Your task to perform on an android device: turn off improve location accuracy Image 0: 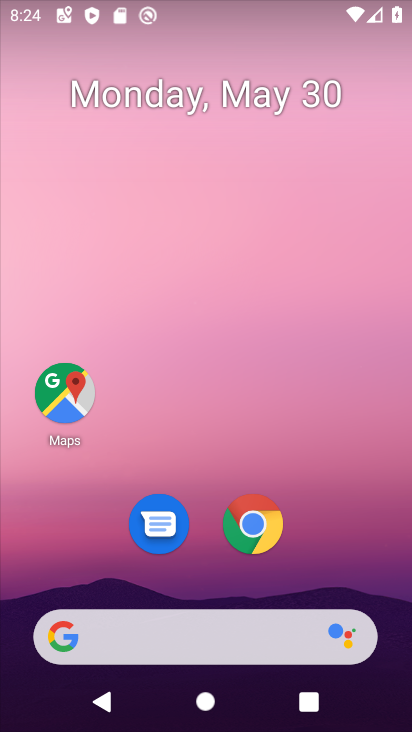
Step 0: drag from (230, 447) to (253, 1)
Your task to perform on an android device: turn off improve location accuracy Image 1: 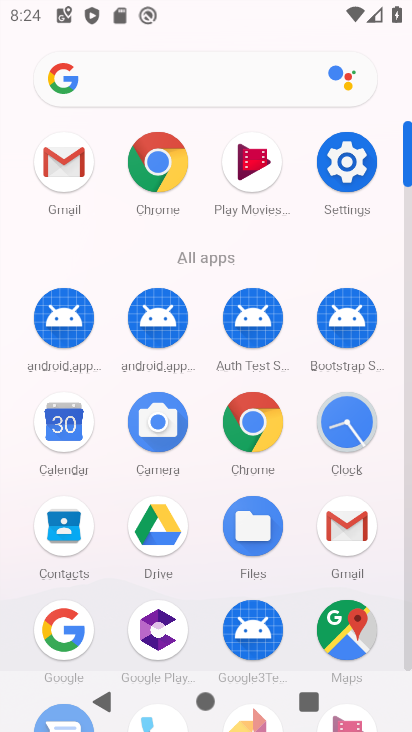
Step 1: click (339, 172)
Your task to perform on an android device: turn off improve location accuracy Image 2: 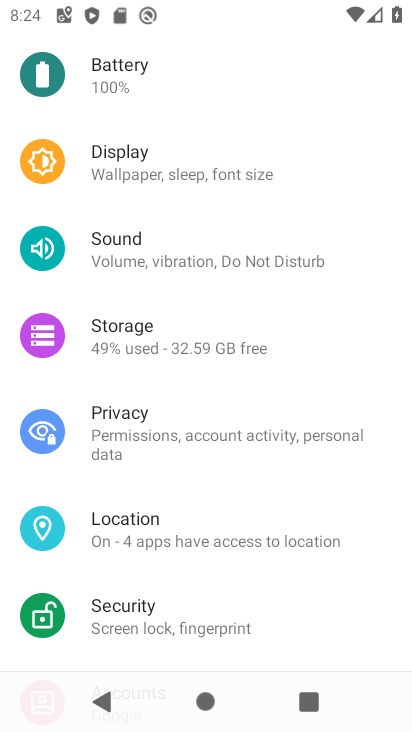
Step 2: click (183, 534)
Your task to perform on an android device: turn off improve location accuracy Image 3: 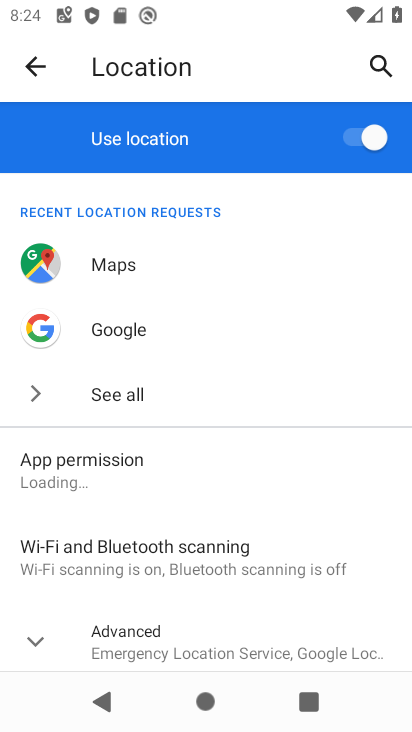
Step 3: click (34, 633)
Your task to perform on an android device: turn off improve location accuracy Image 4: 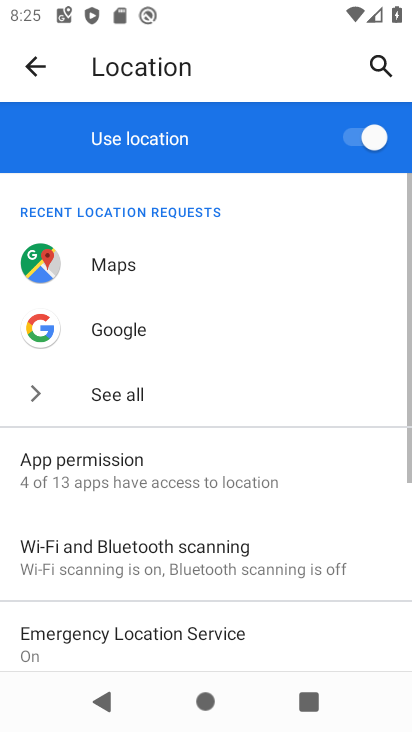
Step 4: drag from (203, 510) to (289, 204)
Your task to perform on an android device: turn off improve location accuracy Image 5: 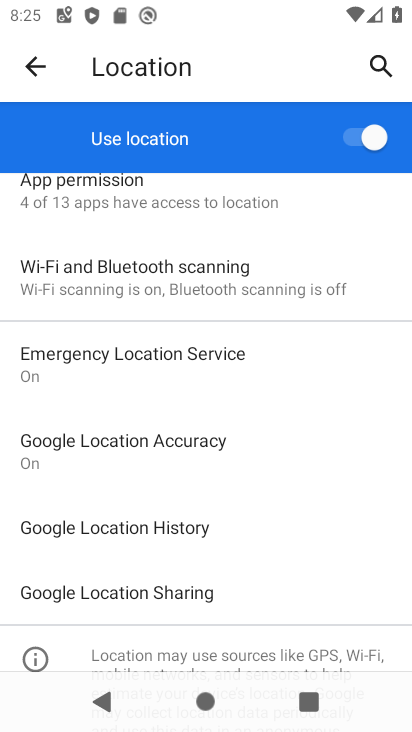
Step 5: click (205, 446)
Your task to perform on an android device: turn off improve location accuracy Image 6: 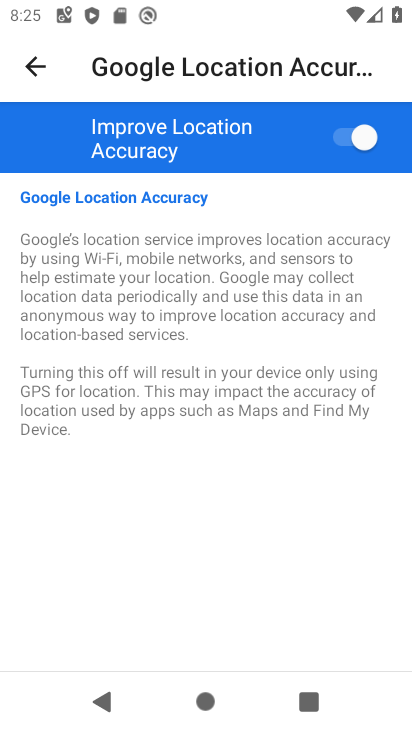
Step 6: click (356, 137)
Your task to perform on an android device: turn off improve location accuracy Image 7: 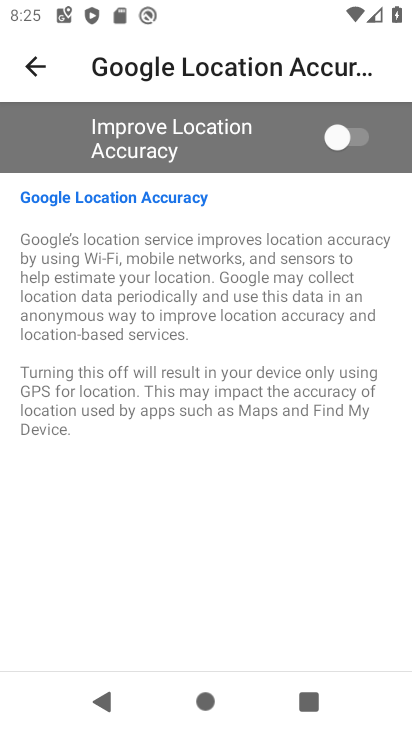
Step 7: task complete